Your task to perform on an android device: open a bookmark in the chrome app Image 0: 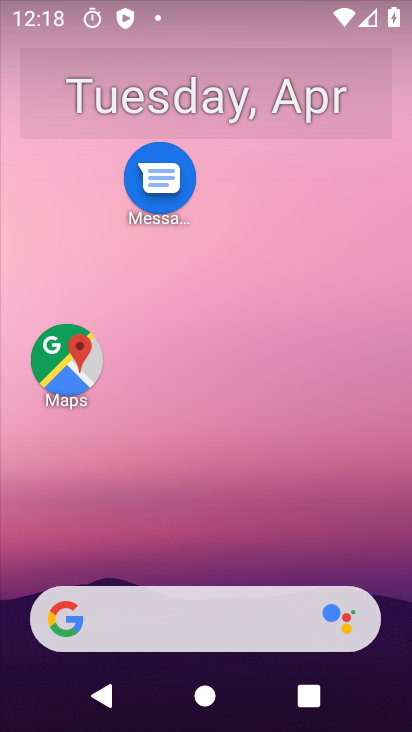
Step 0: drag from (210, 722) to (202, 71)
Your task to perform on an android device: open a bookmark in the chrome app Image 1: 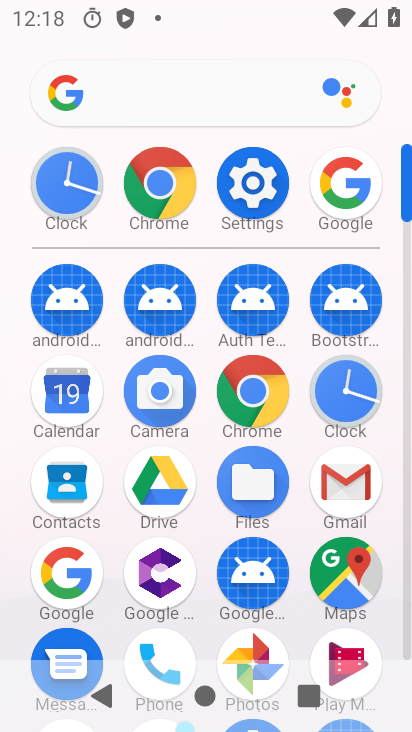
Step 1: click (159, 187)
Your task to perform on an android device: open a bookmark in the chrome app Image 2: 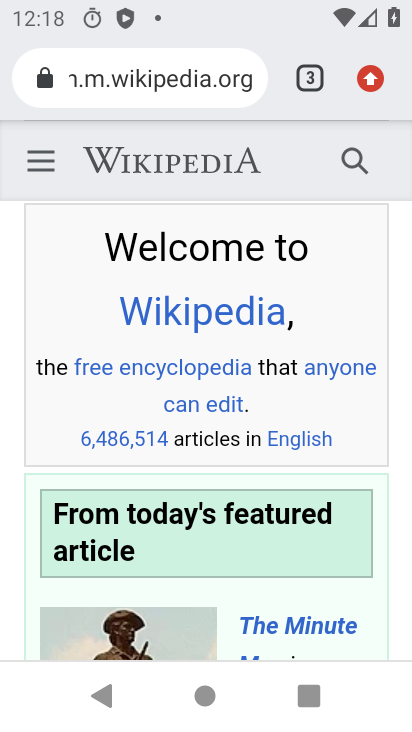
Step 2: click (369, 78)
Your task to perform on an android device: open a bookmark in the chrome app Image 3: 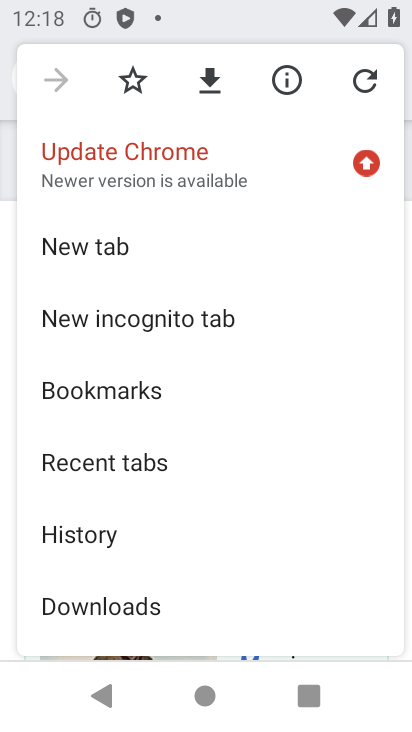
Step 3: click (111, 387)
Your task to perform on an android device: open a bookmark in the chrome app Image 4: 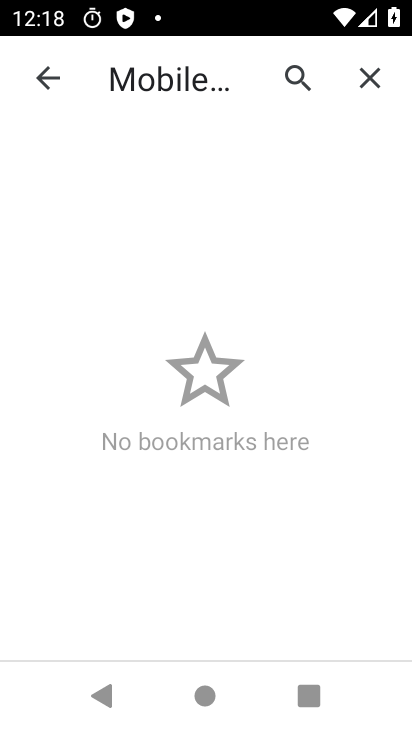
Step 4: task complete